Your task to perform on an android device: Open CNN.com Image 0: 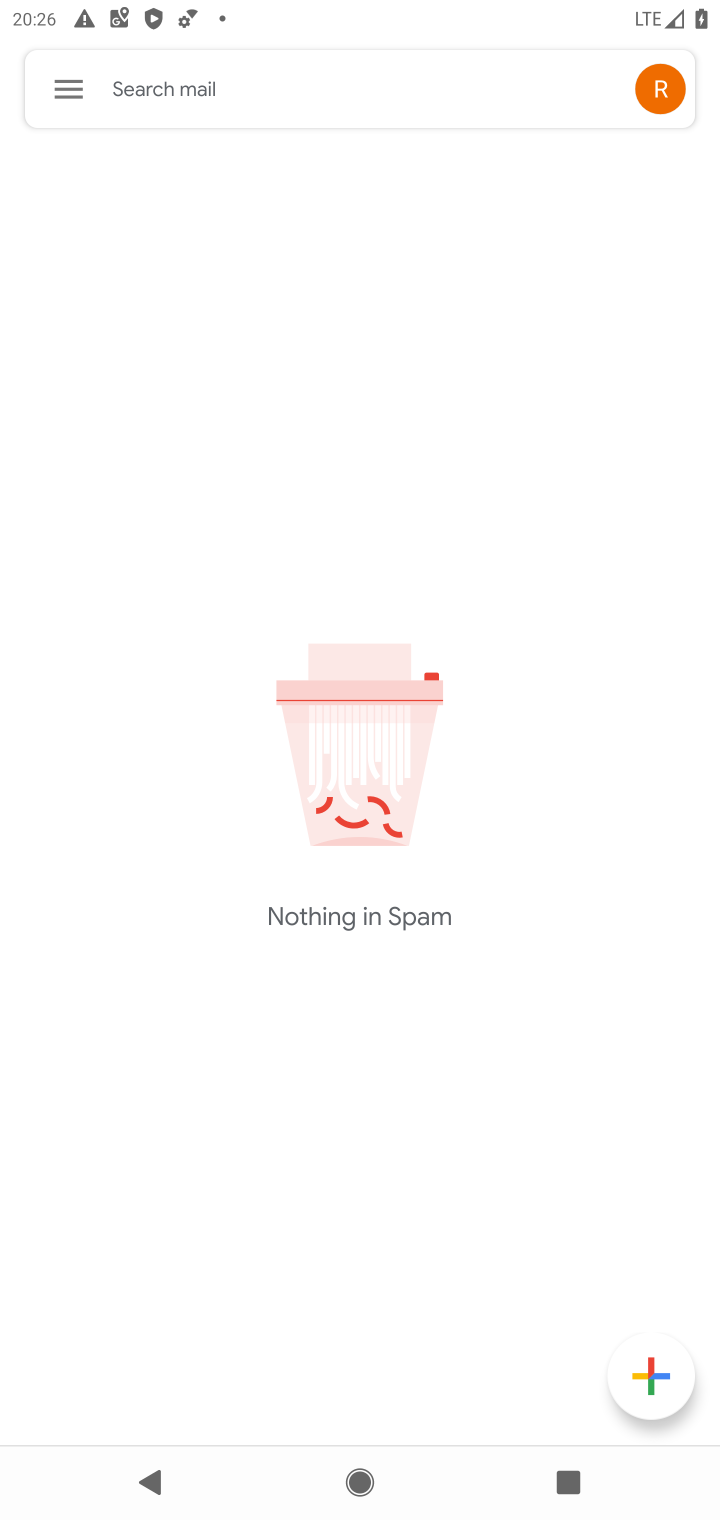
Step 0: press home button
Your task to perform on an android device: Open CNN.com Image 1: 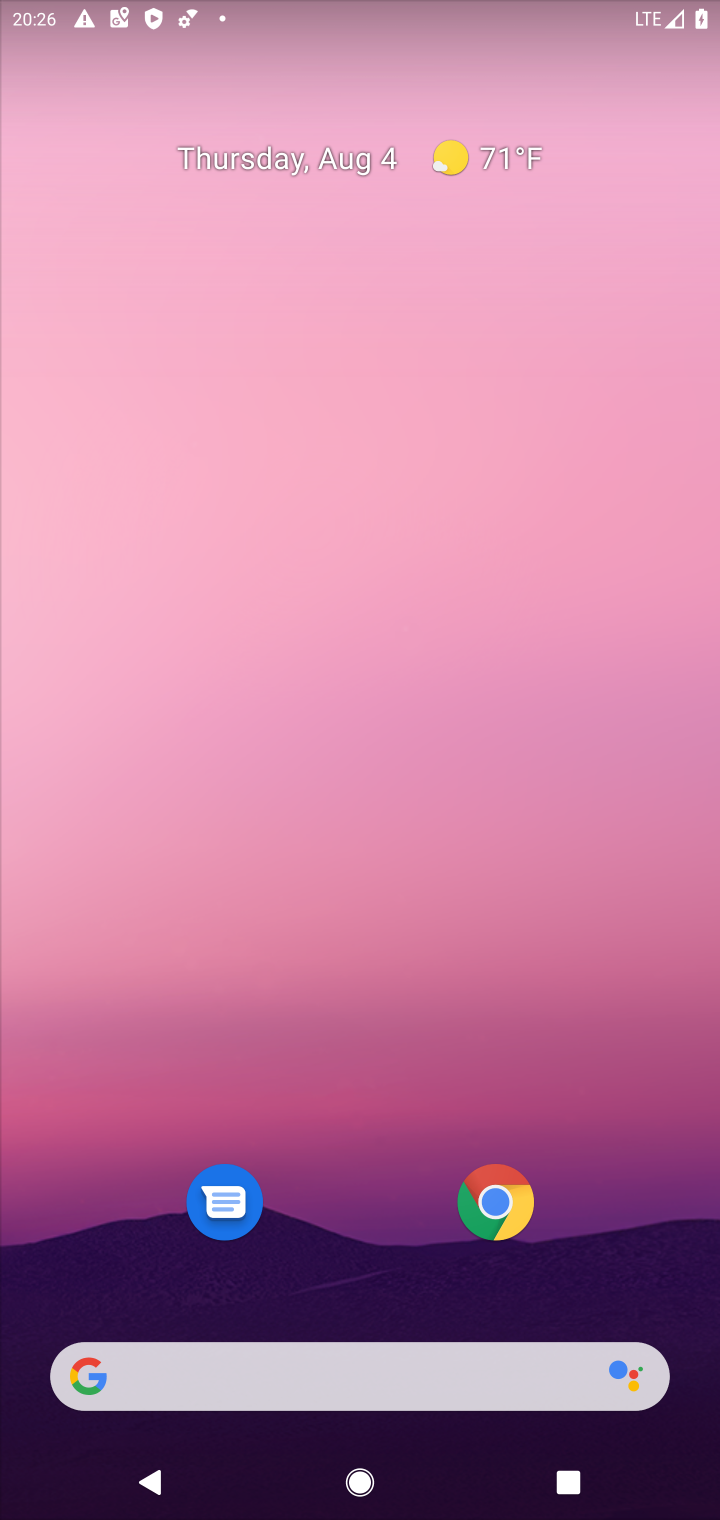
Step 1: click (484, 1210)
Your task to perform on an android device: Open CNN.com Image 2: 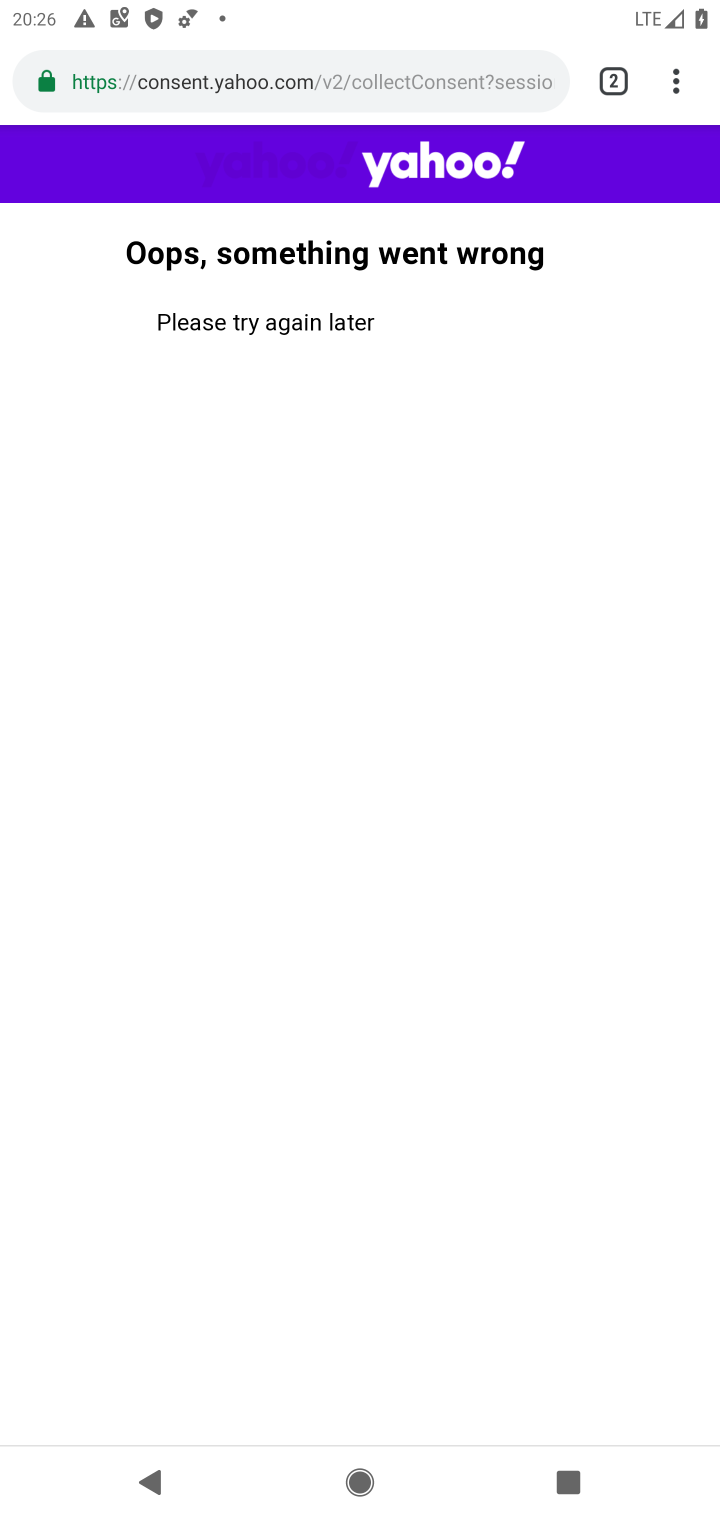
Step 2: click (604, 87)
Your task to perform on an android device: Open CNN.com Image 3: 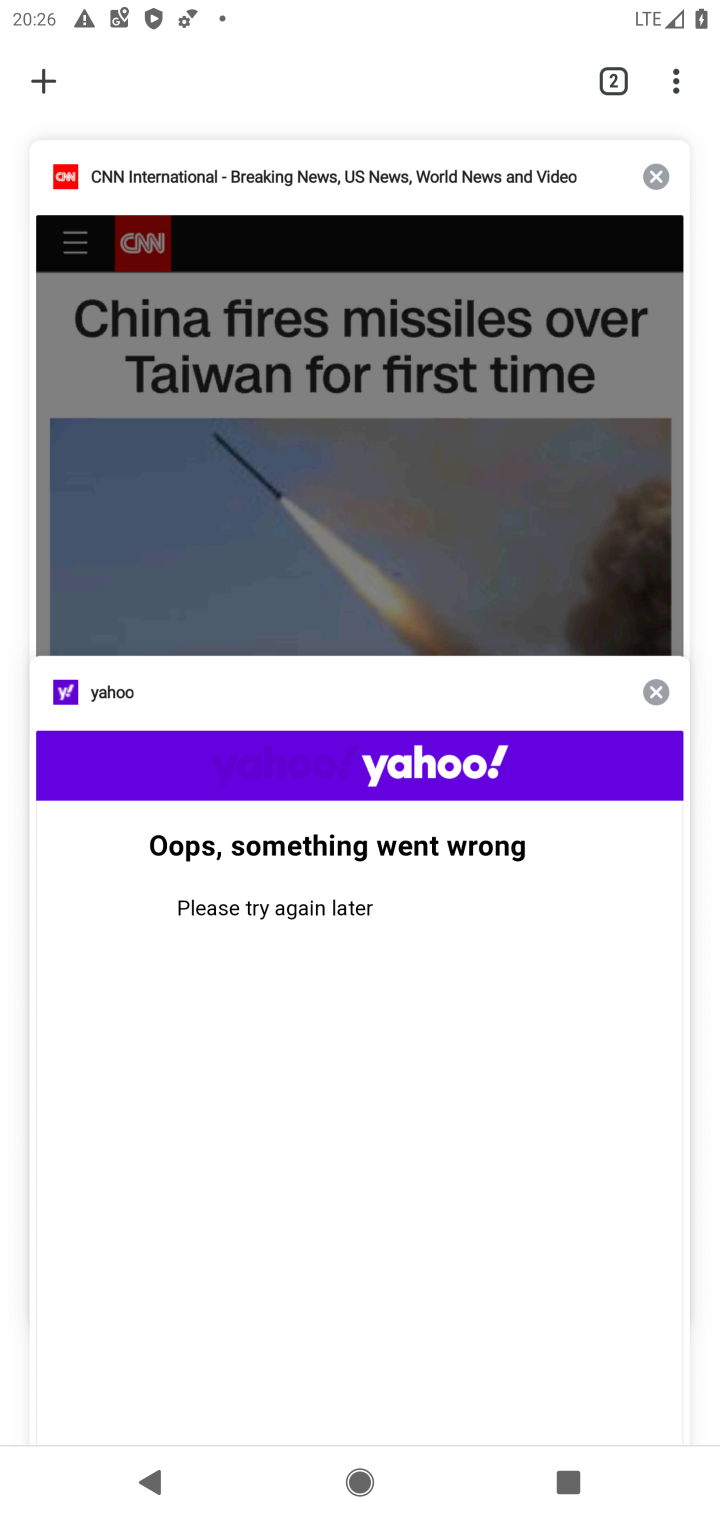
Step 3: click (45, 78)
Your task to perform on an android device: Open CNN.com Image 4: 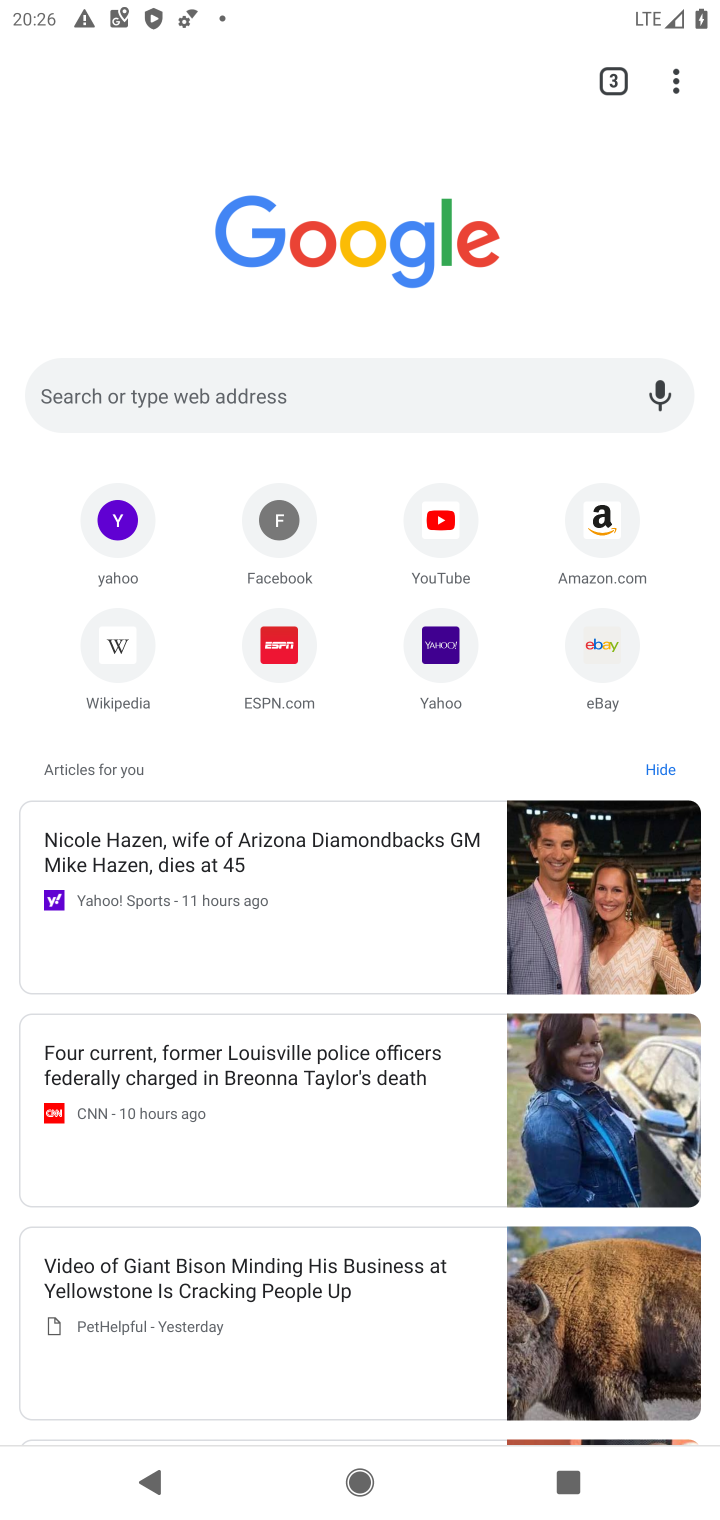
Step 4: click (228, 389)
Your task to perform on an android device: Open CNN.com Image 5: 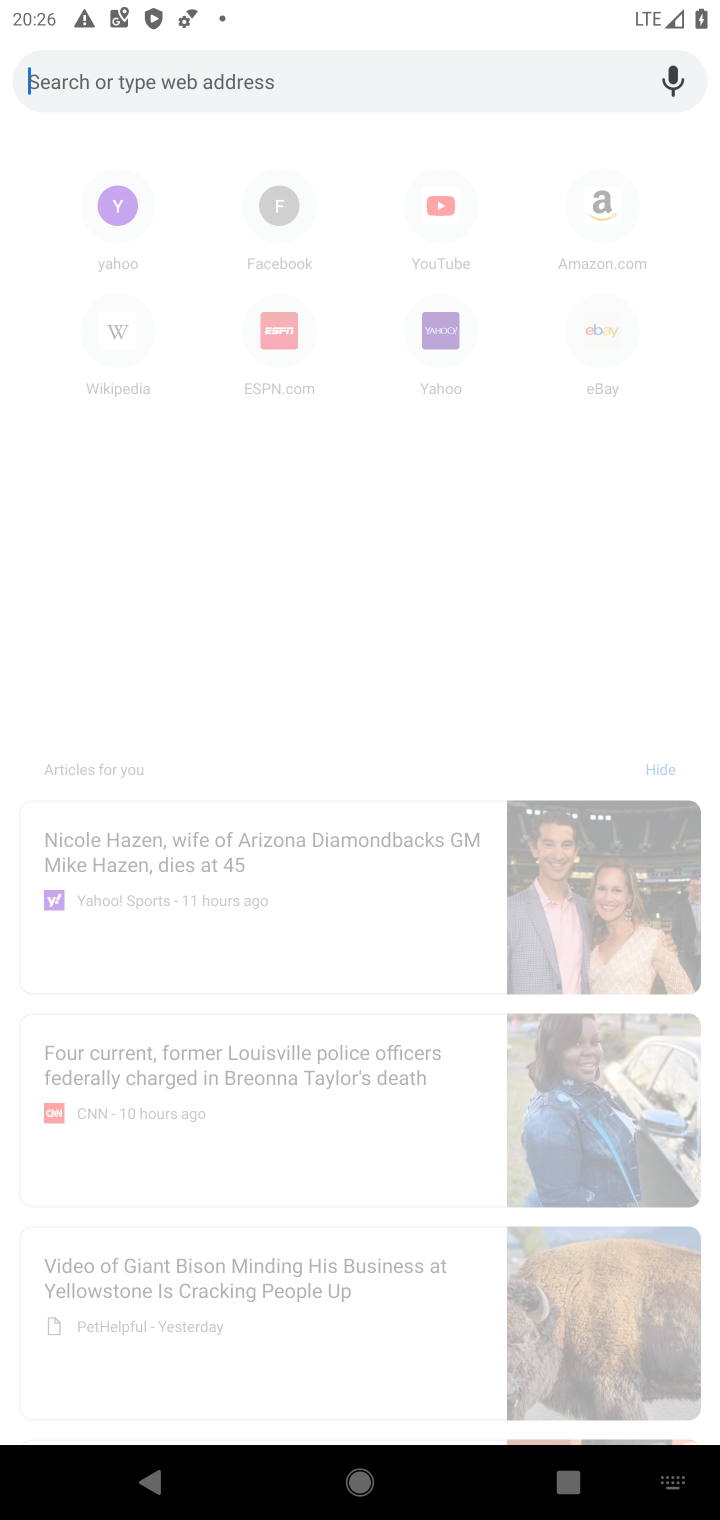
Step 5: type "CNN.com"
Your task to perform on an android device: Open CNN.com Image 6: 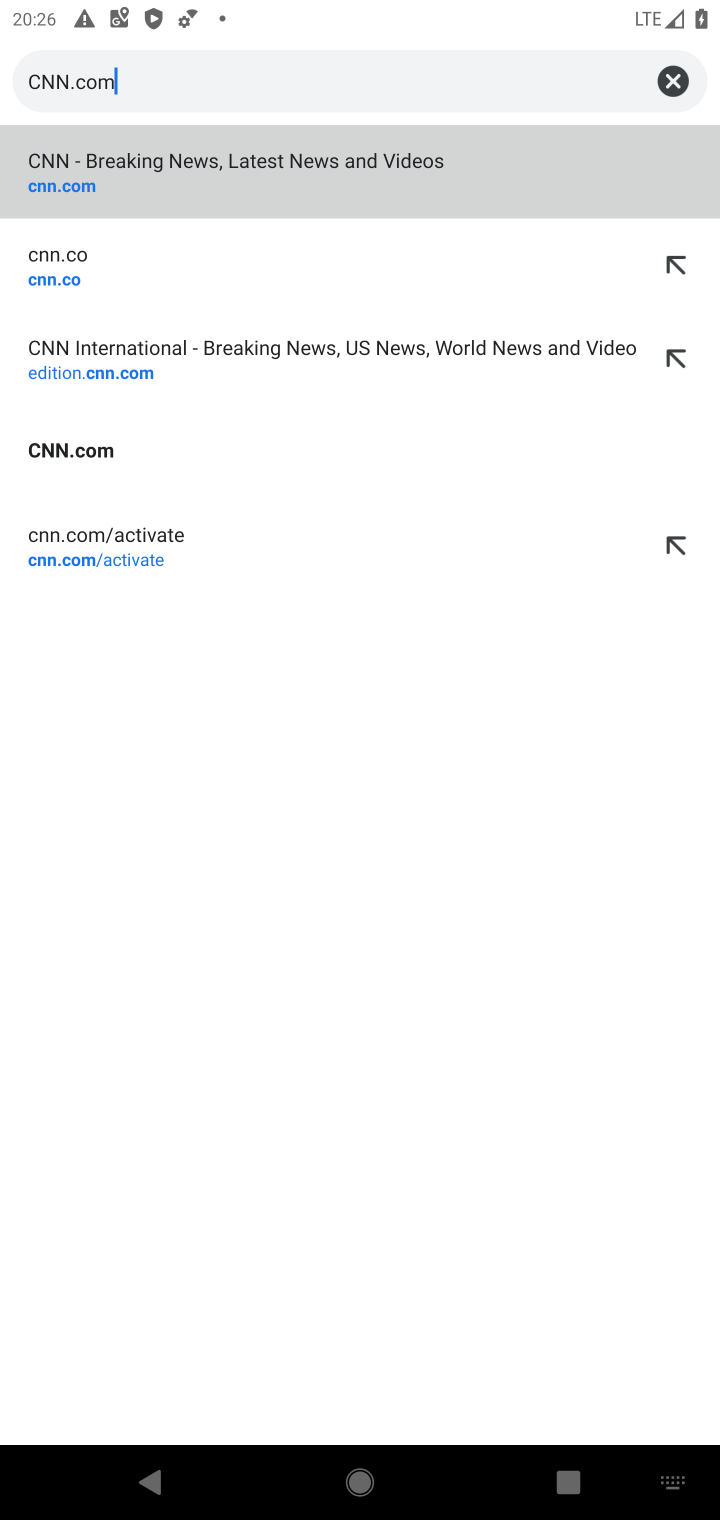
Step 6: type ""
Your task to perform on an android device: Open CNN.com Image 7: 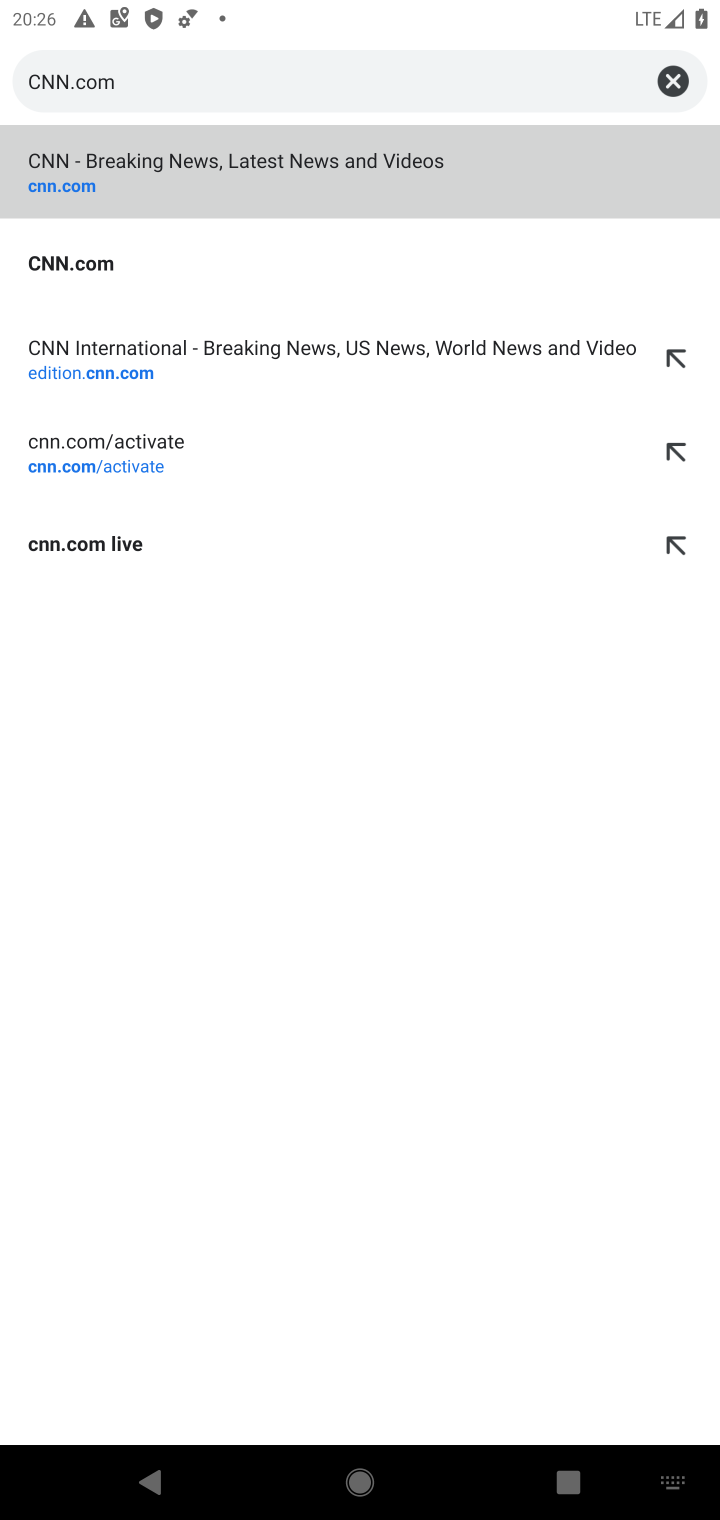
Step 7: click (183, 164)
Your task to perform on an android device: Open CNN.com Image 8: 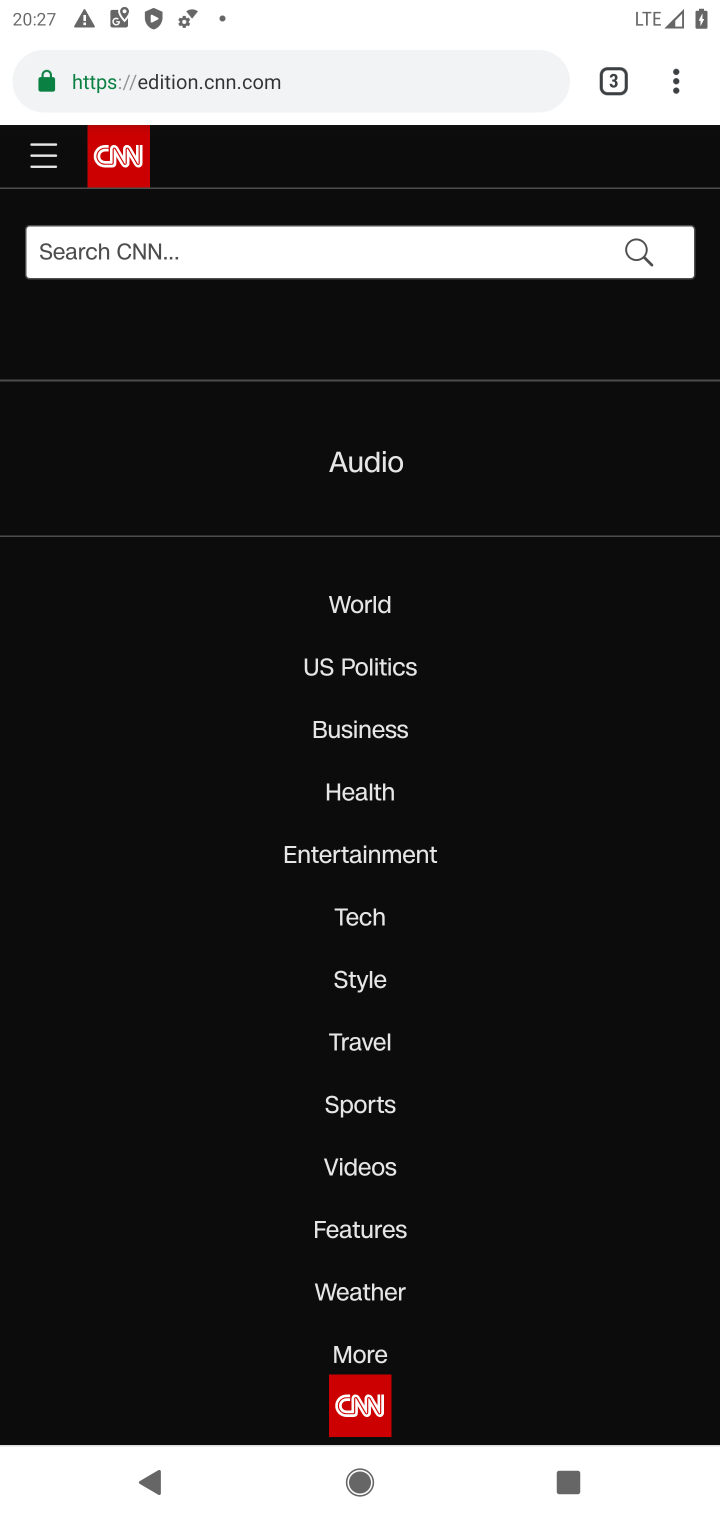
Step 8: task complete